Your task to perform on an android device: Open maps Image 0: 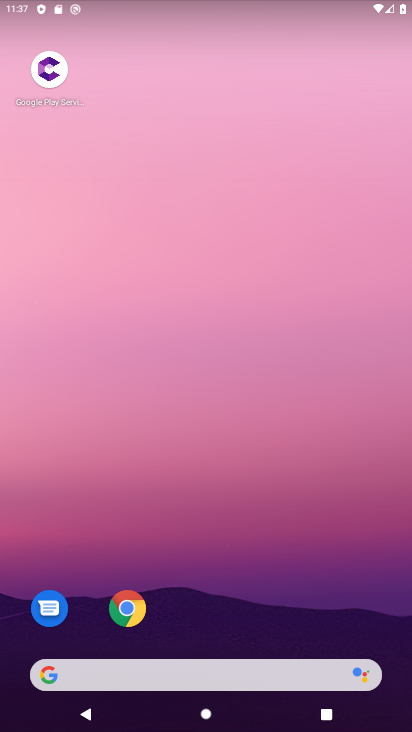
Step 0: drag from (287, 457) to (259, 15)
Your task to perform on an android device: Open maps Image 1: 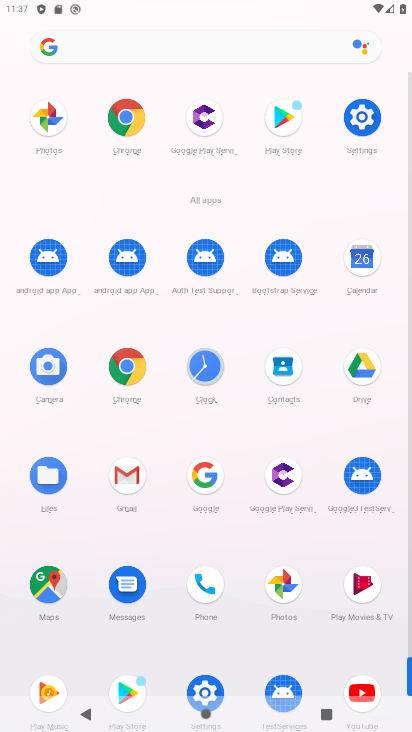
Step 1: drag from (44, 354) to (36, 183)
Your task to perform on an android device: Open maps Image 2: 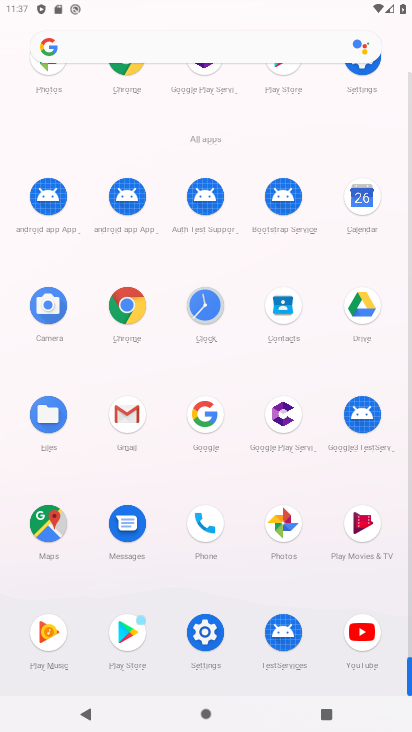
Step 2: click (43, 521)
Your task to perform on an android device: Open maps Image 3: 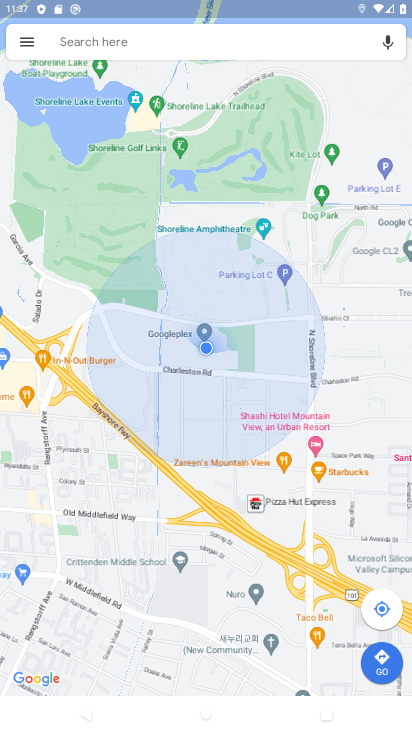
Step 3: task complete